Your task to perform on an android device: turn pop-ups off in chrome Image 0: 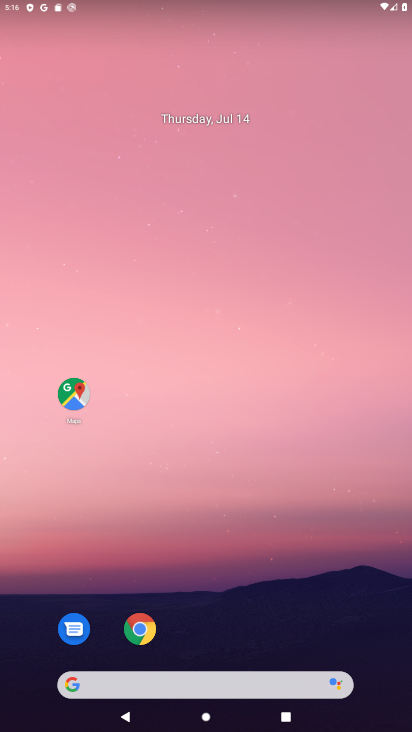
Step 0: drag from (338, 614) to (359, 93)
Your task to perform on an android device: turn pop-ups off in chrome Image 1: 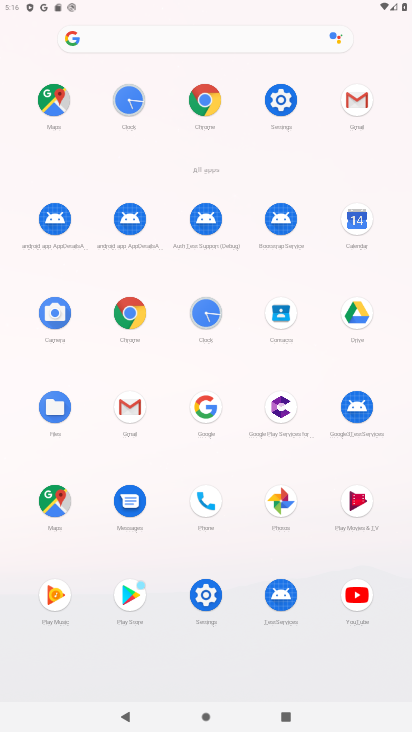
Step 1: click (133, 307)
Your task to perform on an android device: turn pop-ups off in chrome Image 2: 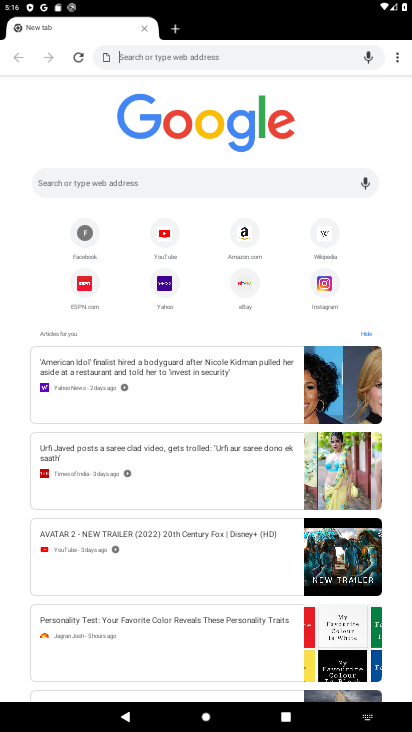
Step 2: drag from (390, 54) to (306, 270)
Your task to perform on an android device: turn pop-ups off in chrome Image 3: 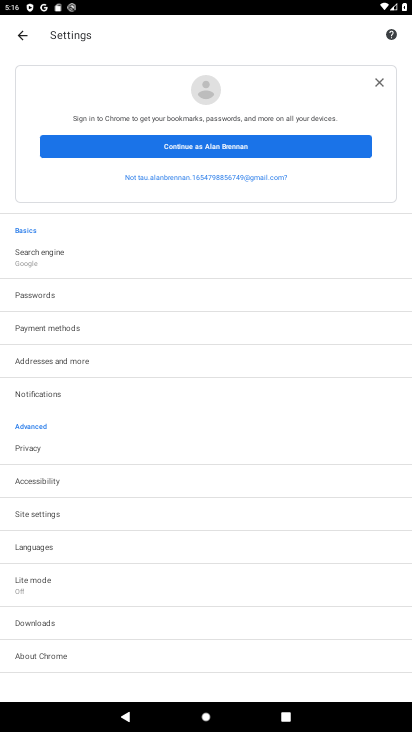
Step 3: click (47, 519)
Your task to perform on an android device: turn pop-ups off in chrome Image 4: 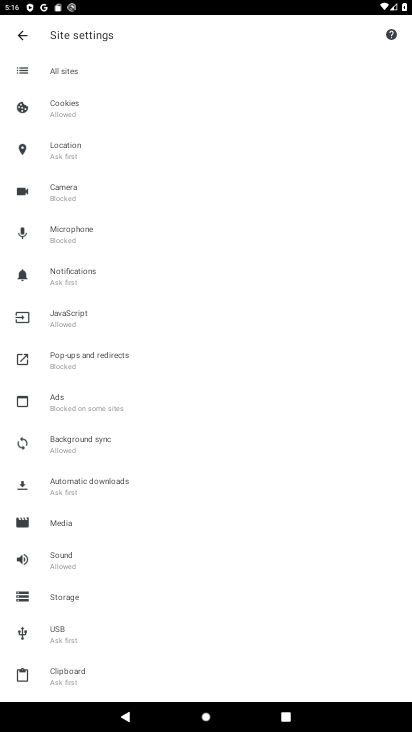
Step 4: click (118, 358)
Your task to perform on an android device: turn pop-ups off in chrome Image 5: 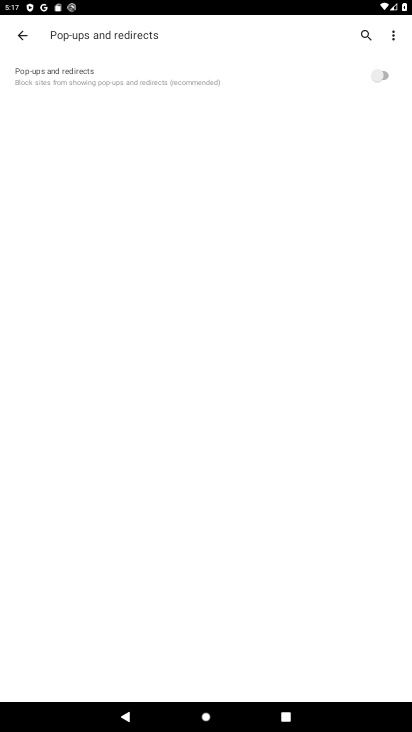
Step 5: task complete